Your task to perform on an android device: set default search engine in the chrome app Image 0: 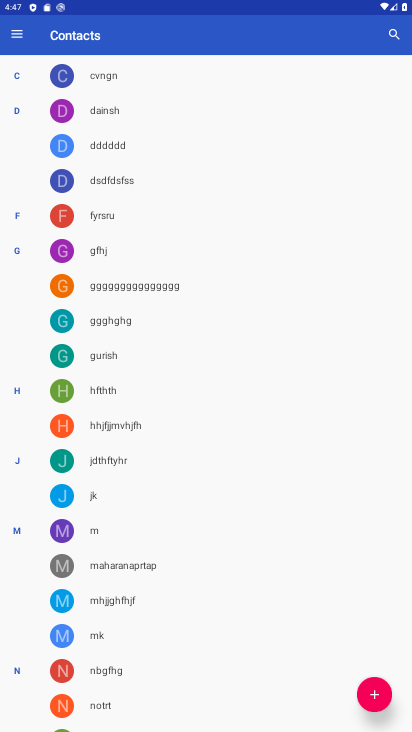
Step 0: press home button
Your task to perform on an android device: set default search engine in the chrome app Image 1: 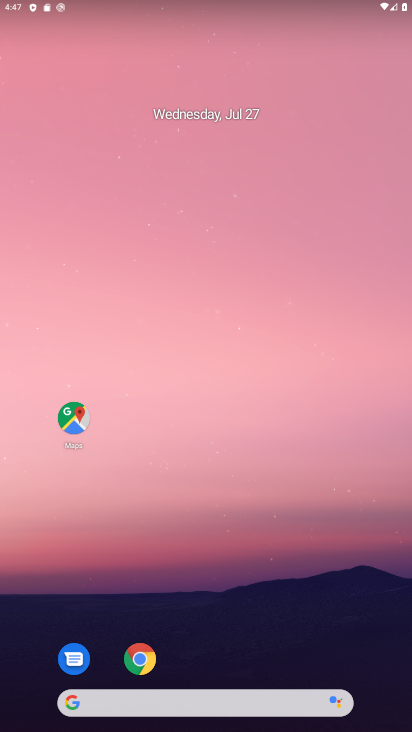
Step 1: drag from (270, 626) to (231, 174)
Your task to perform on an android device: set default search engine in the chrome app Image 2: 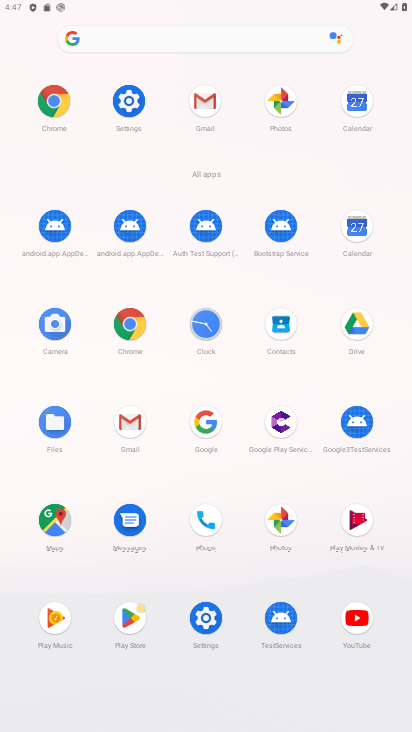
Step 2: click (127, 330)
Your task to perform on an android device: set default search engine in the chrome app Image 3: 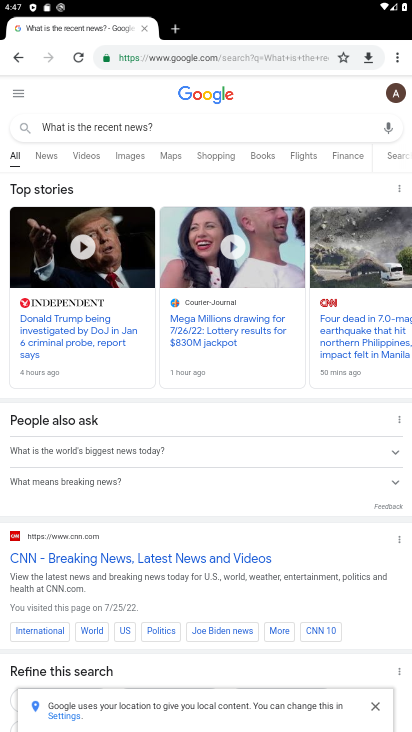
Step 3: drag from (397, 61) to (278, 350)
Your task to perform on an android device: set default search engine in the chrome app Image 4: 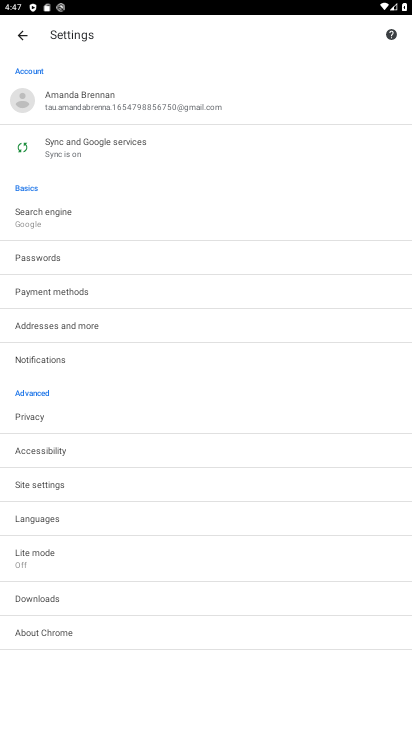
Step 4: click (50, 209)
Your task to perform on an android device: set default search engine in the chrome app Image 5: 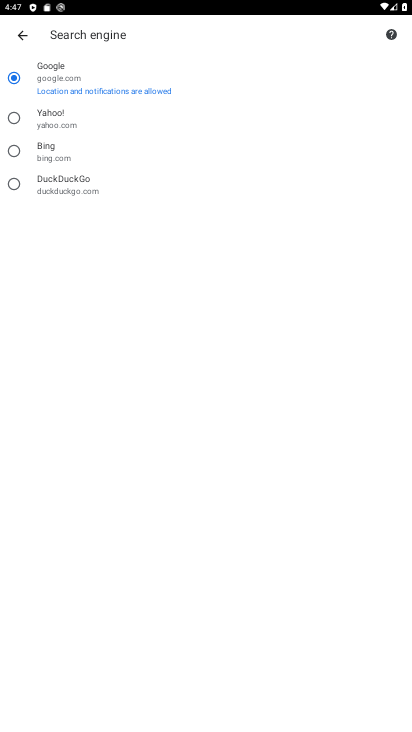
Step 5: task complete